Your task to perform on an android device: Do I have any events today? Image 0: 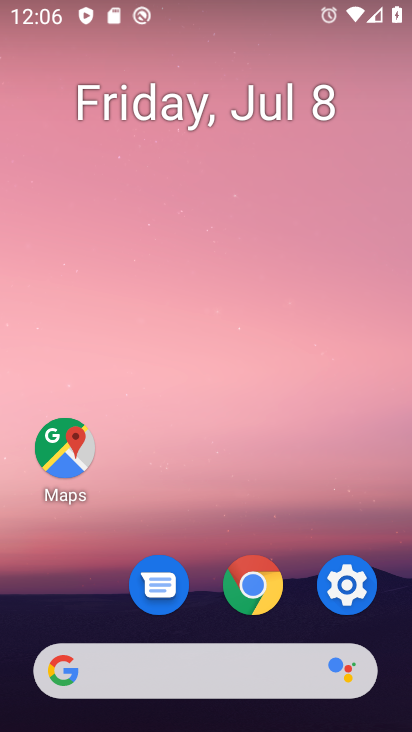
Step 0: drag from (184, 707) to (252, 194)
Your task to perform on an android device: Do I have any events today? Image 1: 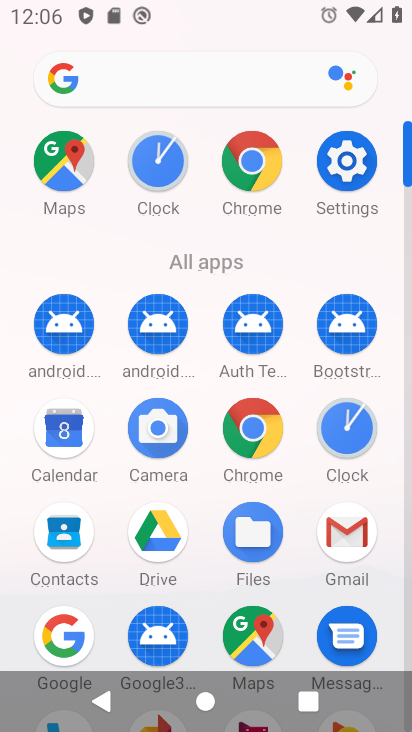
Step 1: click (49, 426)
Your task to perform on an android device: Do I have any events today? Image 2: 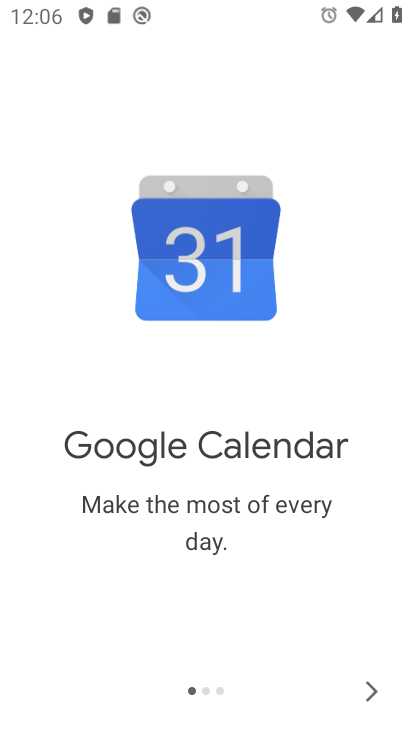
Step 2: click (364, 692)
Your task to perform on an android device: Do I have any events today? Image 3: 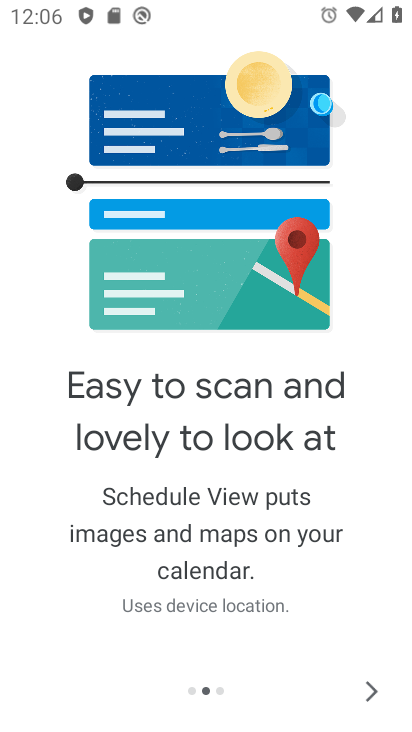
Step 3: click (364, 692)
Your task to perform on an android device: Do I have any events today? Image 4: 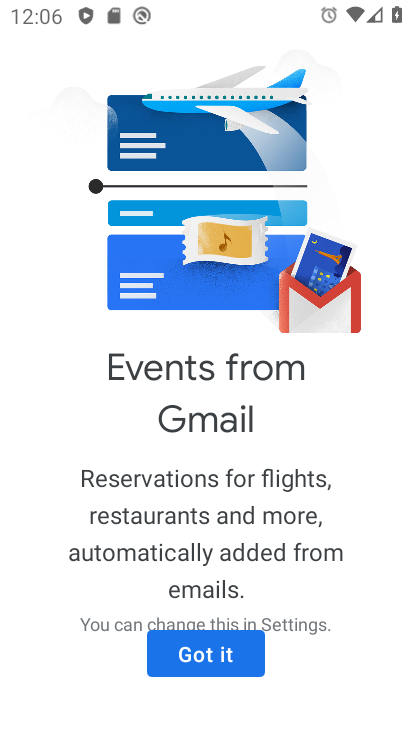
Step 4: click (223, 664)
Your task to perform on an android device: Do I have any events today? Image 5: 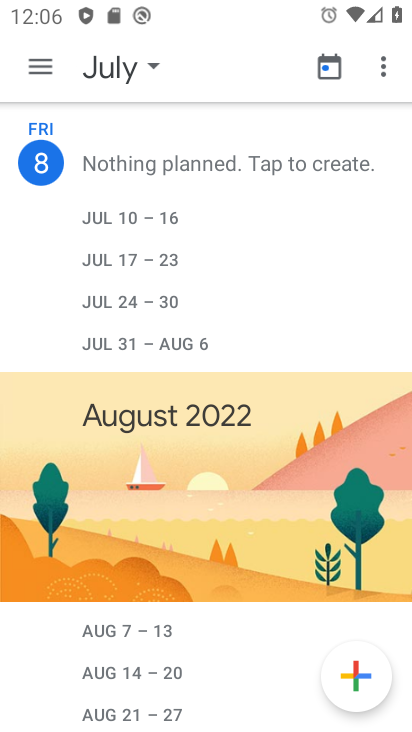
Step 5: click (42, 67)
Your task to perform on an android device: Do I have any events today? Image 6: 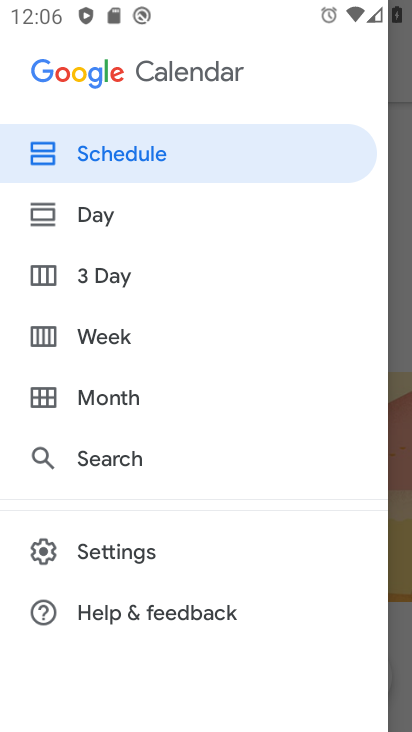
Step 6: click (103, 161)
Your task to perform on an android device: Do I have any events today? Image 7: 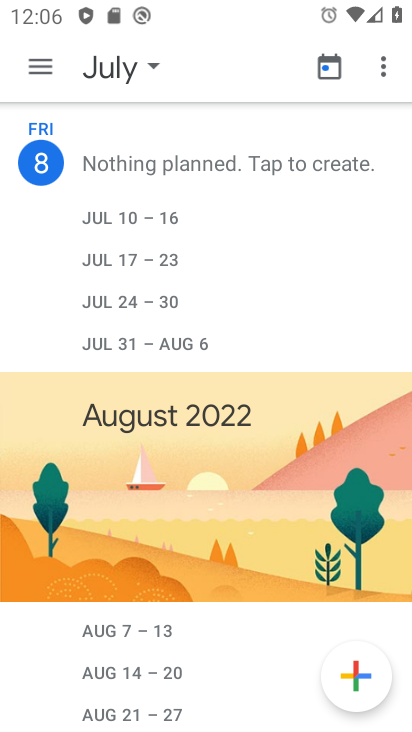
Step 7: task complete